Your task to perform on an android device: Is it going to rain tomorrow? Image 0: 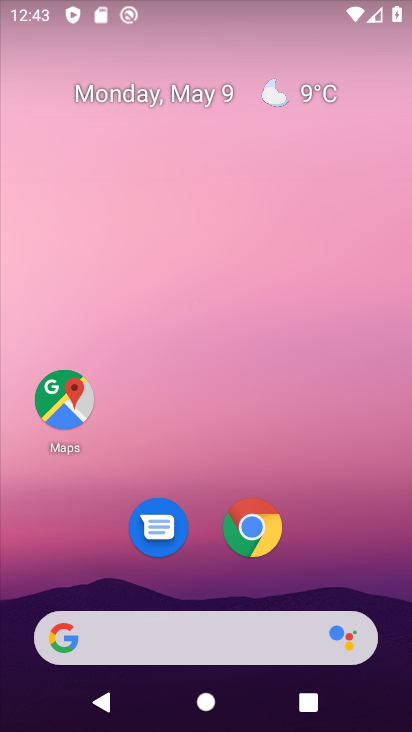
Step 0: click (310, 82)
Your task to perform on an android device: Is it going to rain tomorrow? Image 1: 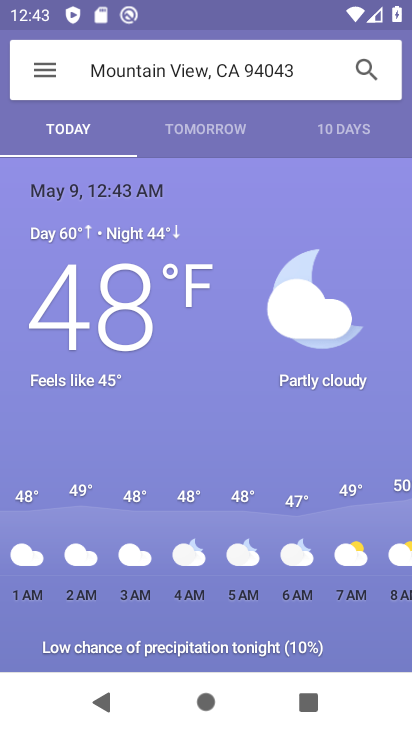
Step 1: click (224, 124)
Your task to perform on an android device: Is it going to rain tomorrow? Image 2: 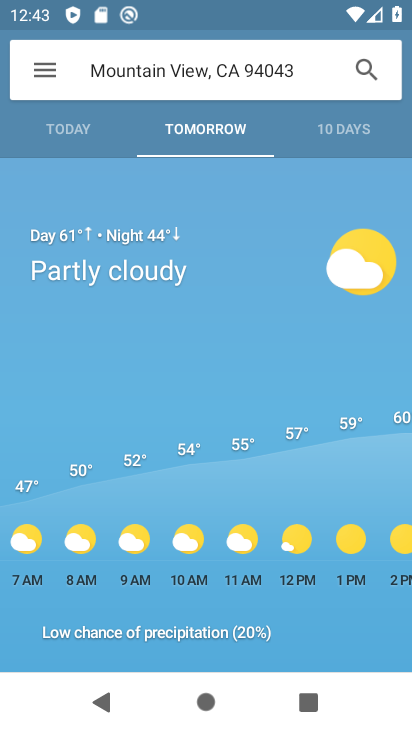
Step 2: task complete